Your task to perform on an android device: Go to privacy settings Image 0: 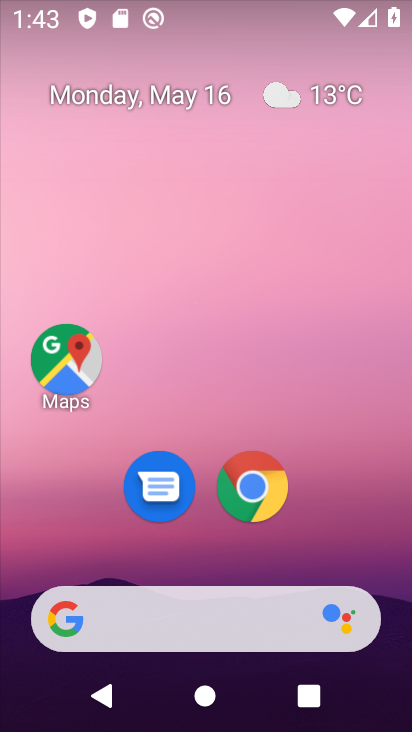
Step 0: drag from (338, 345) to (340, 13)
Your task to perform on an android device: Go to privacy settings Image 1: 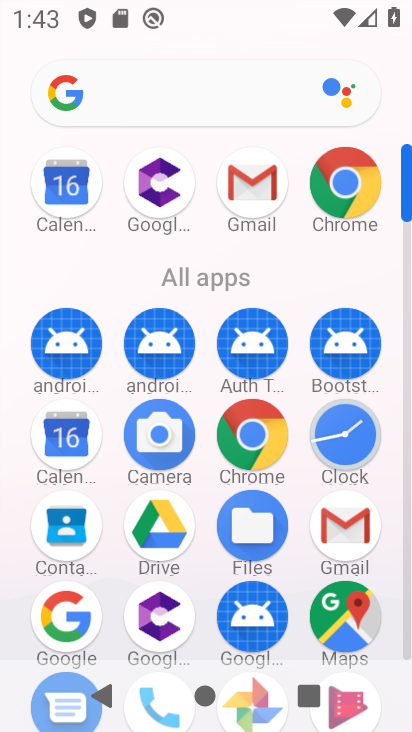
Step 1: drag from (397, 485) to (358, 31)
Your task to perform on an android device: Go to privacy settings Image 2: 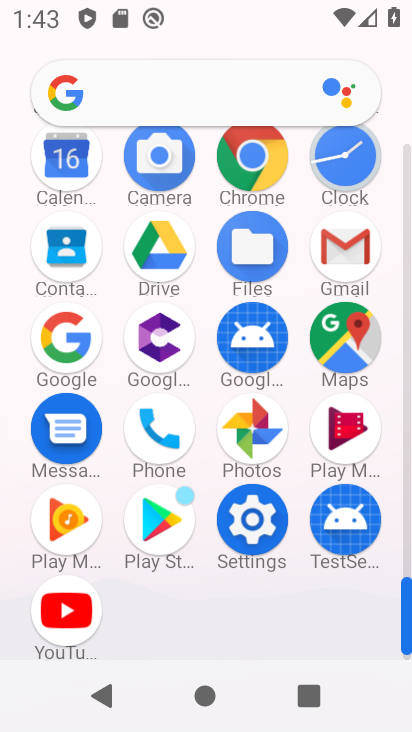
Step 2: click (257, 489)
Your task to perform on an android device: Go to privacy settings Image 3: 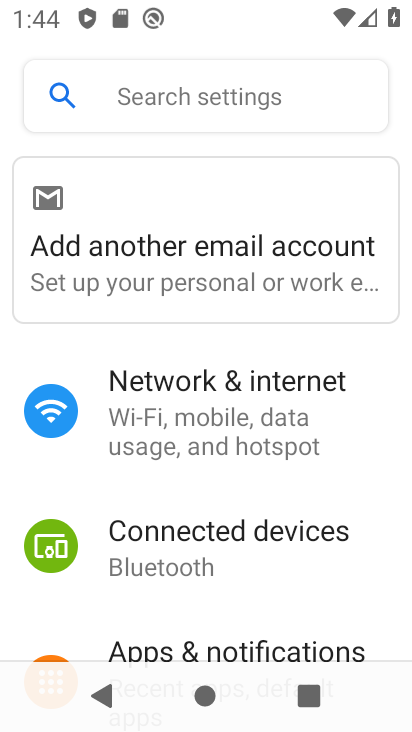
Step 3: drag from (299, 565) to (320, 148)
Your task to perform on an android device: Go to privacy settings Image 4: 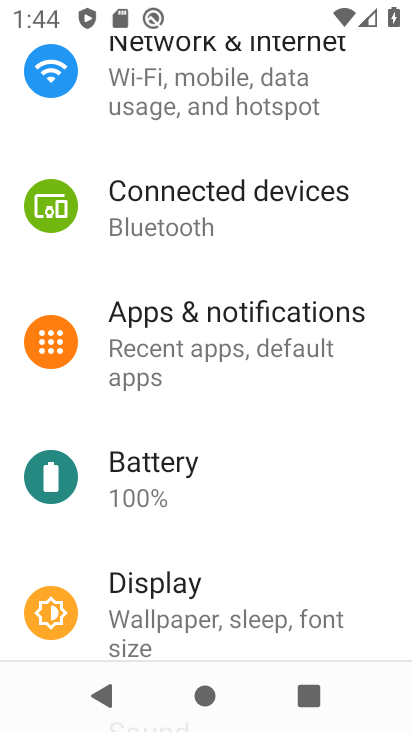
Step 4: drag from (155, 209) to (231, 638)
Your task to perform on an android device: Go to privacy settings Image 5: 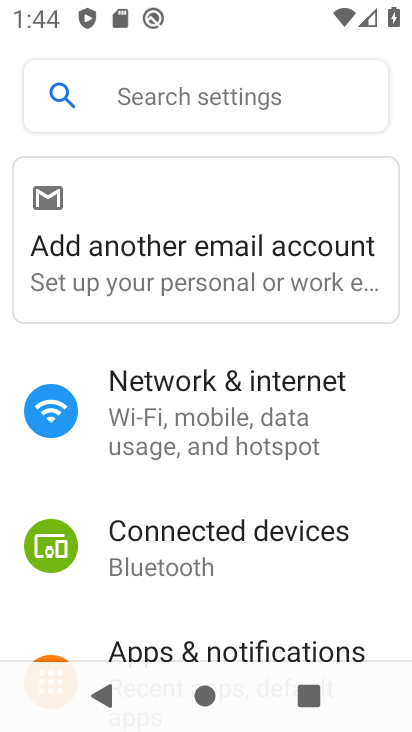
Step 5: drag from (247, 610) to (258, 249)
Your task to perform on an android device: Go to privacy settings Image 6: 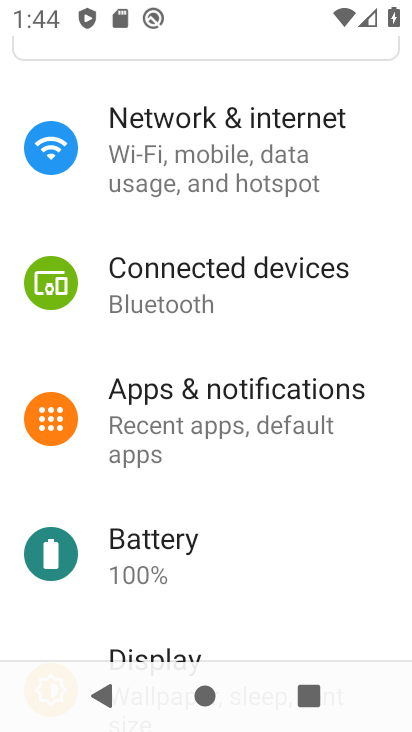
Step 6: drag from (274, 519) to (312, 150)
Your task to perform on an android device: Go to privacy settings Image 7: 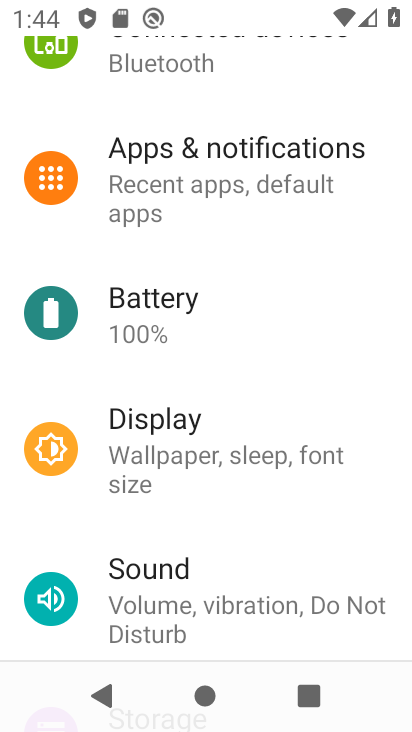
Step 7: drag from (187, 533) to (217, 124)
Your task to perform on an android device: Go to privacy settings Image 8: 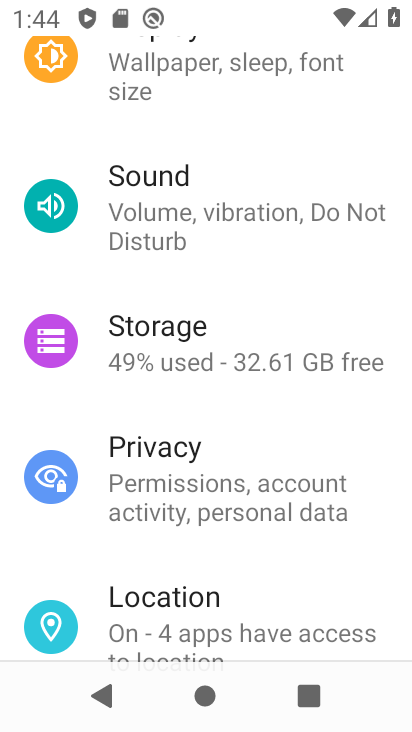
Step 8: click (182, 491)
Your task to perform on an android device: Go to privacy settings Image 9: 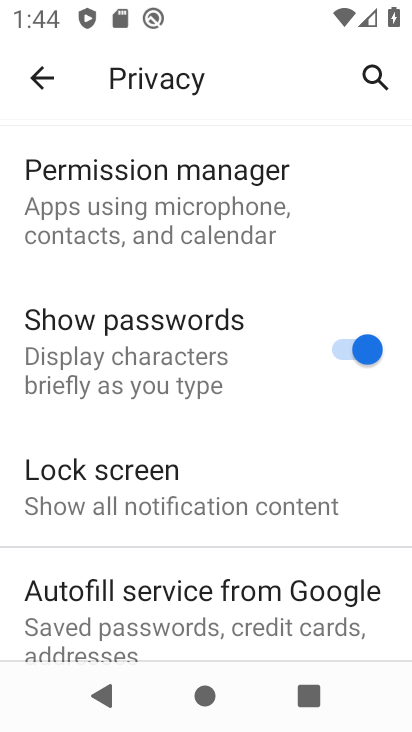
Step 9: task complete